Your task to perform on an android device: Add "apple airpods pro" to the cart on bestbuy, then select checkout. Image 0: 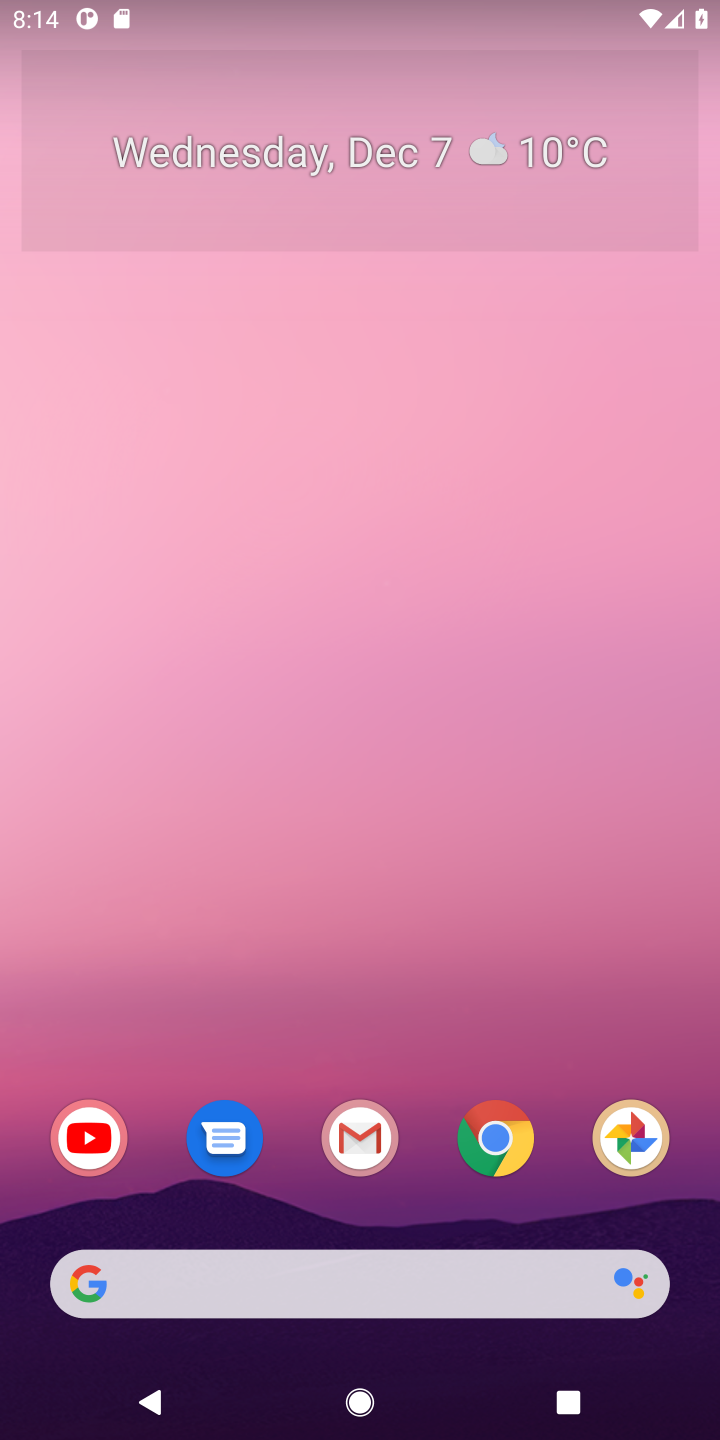
Step 0: press home button
Your task to perform on an android device: Add "apple airpods pro" to the cart on bestbuy, then select checkout. Image 1: 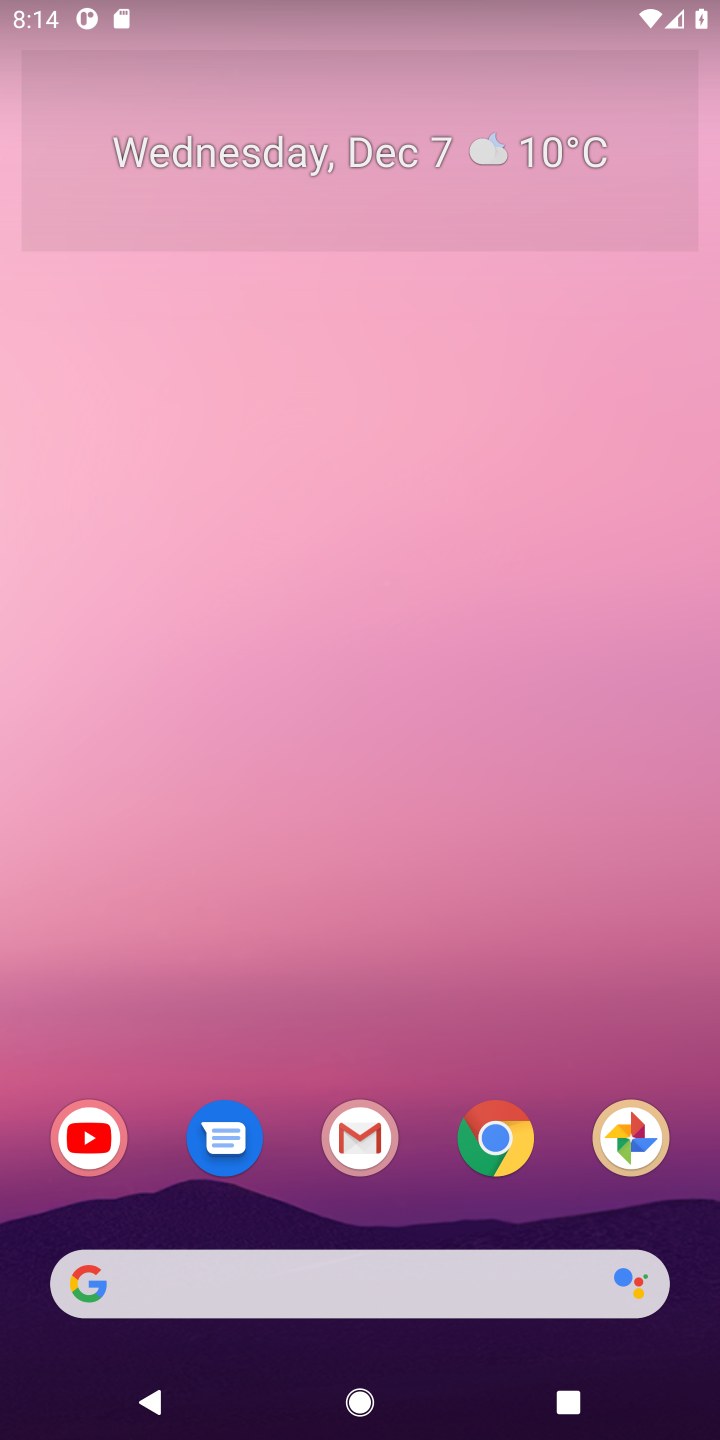
Step 1: click (156, 1276)
Your task to perform on an android device: Add "apple airpods pro" to the cart on bestbuy, then select checkout. Image 2: 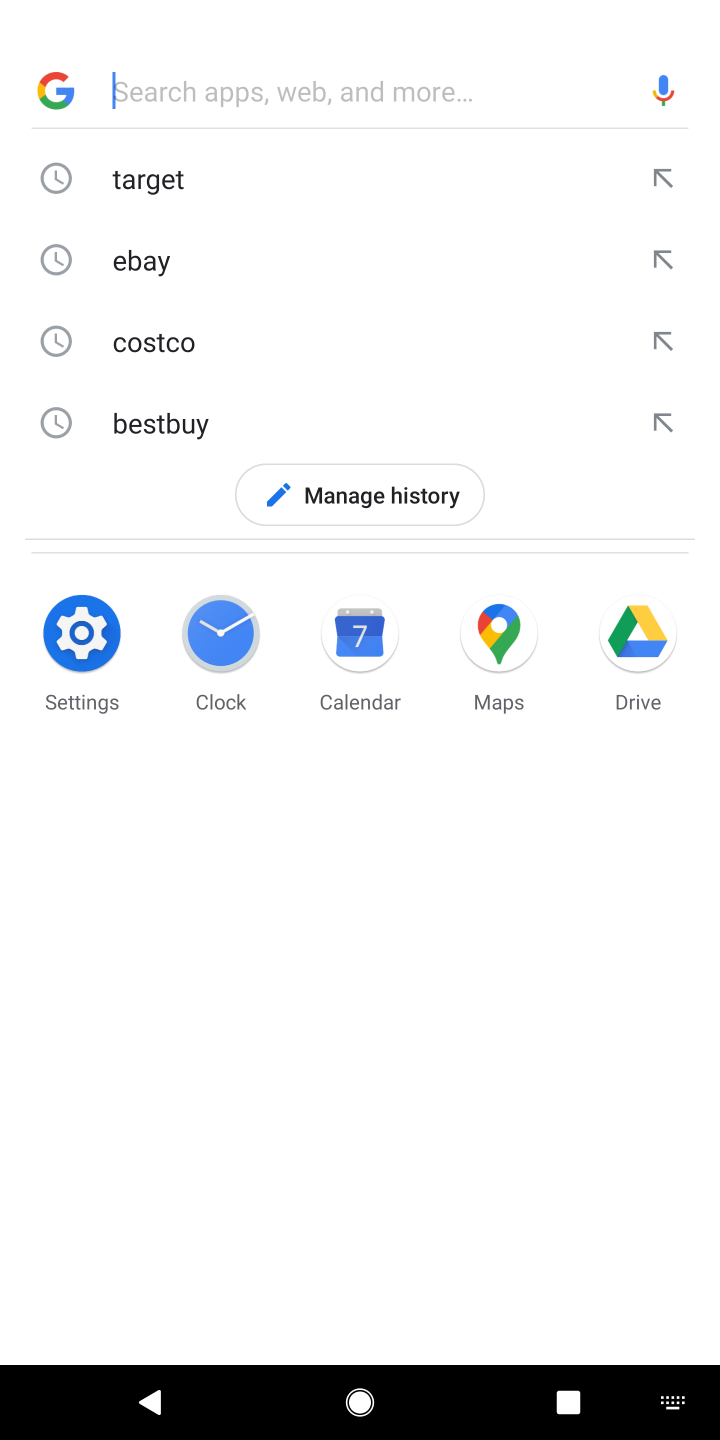
Step 2: type "bestbuy"
Your task to perform on an android device: Add "apple airpods pro" to the cart on bestbuy, then select checkout. Image 3: 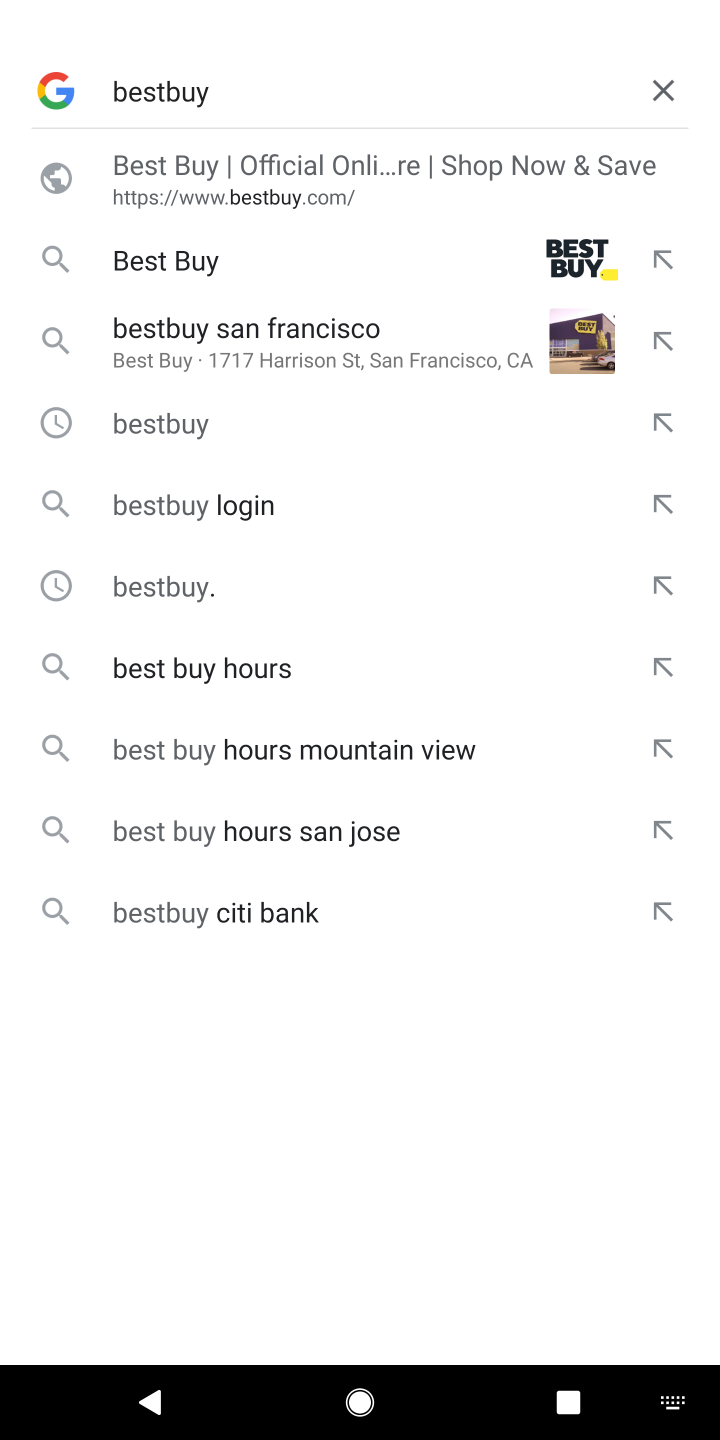
Step 3: press enter
Your task to perform on an android device: Add "apple airpods pro" to the cart on bestbuy, then select checkout. Image 4: 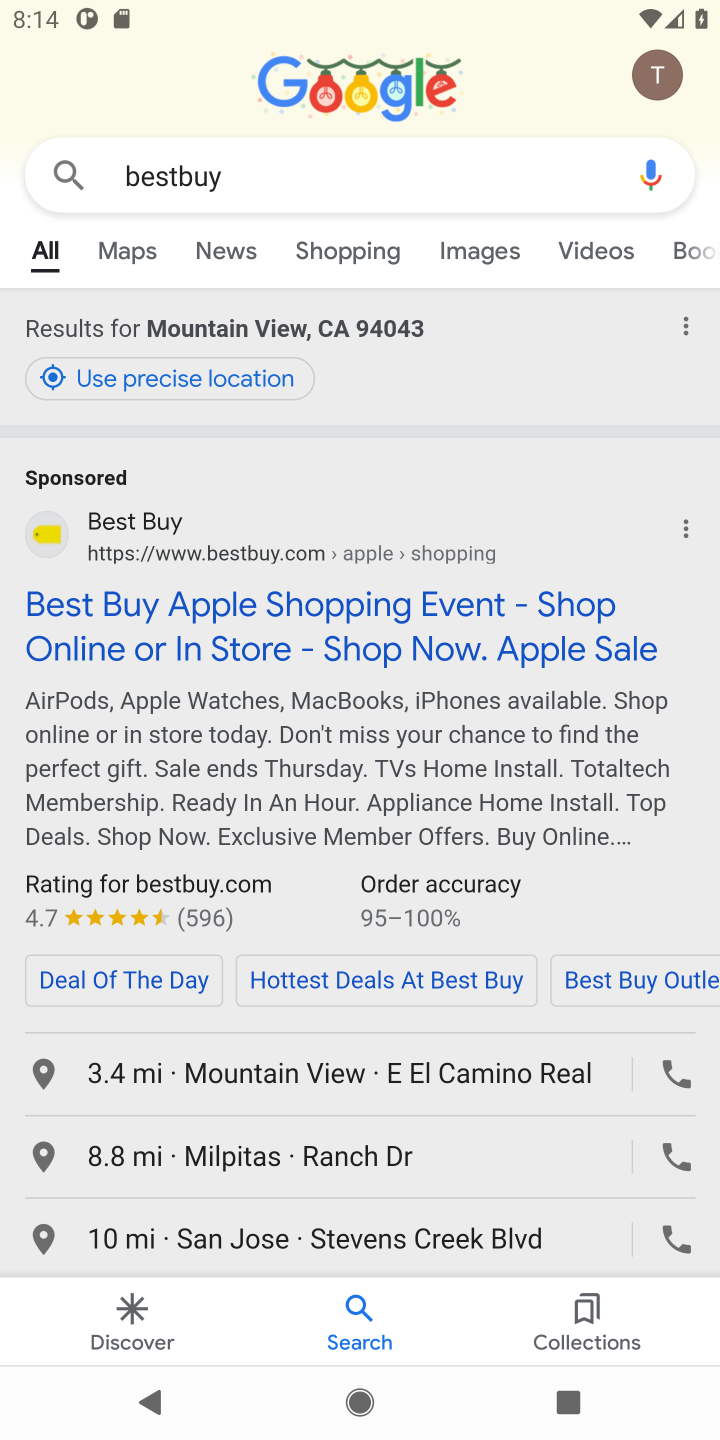
Step 4: click (392, 636)
Your task to perform on an android device: Add "apple airpods pro" to the cart on bestbuy, then select checkout. Image 5: 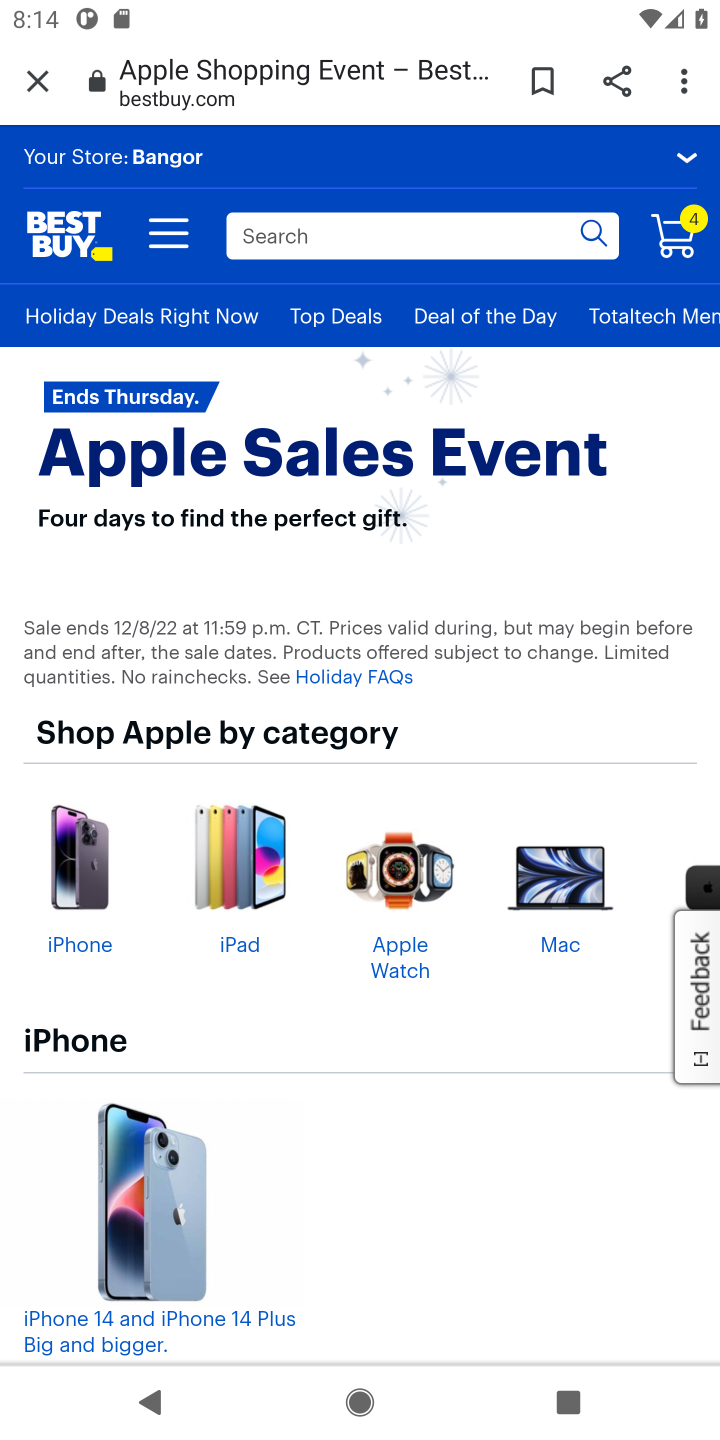
Step 5: click (291, 230)
Your task to perform on an android device: Add "apple airpods pro" to the cart on bestbuy, then select checkout. Image 6: 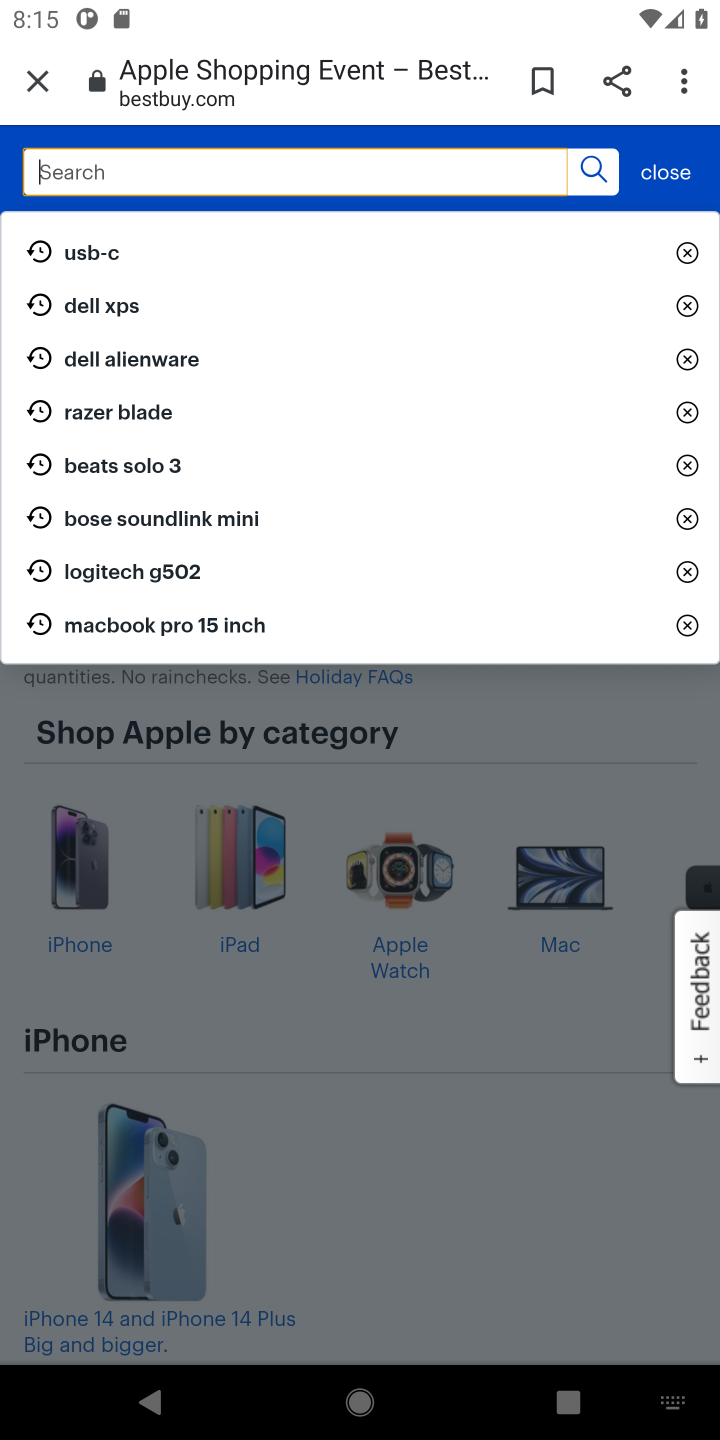
Step 6: press enter
Your task to perform on an android device: Add "apple airpods pro" to the cart on bestbuy, then select checkout. Image 7: 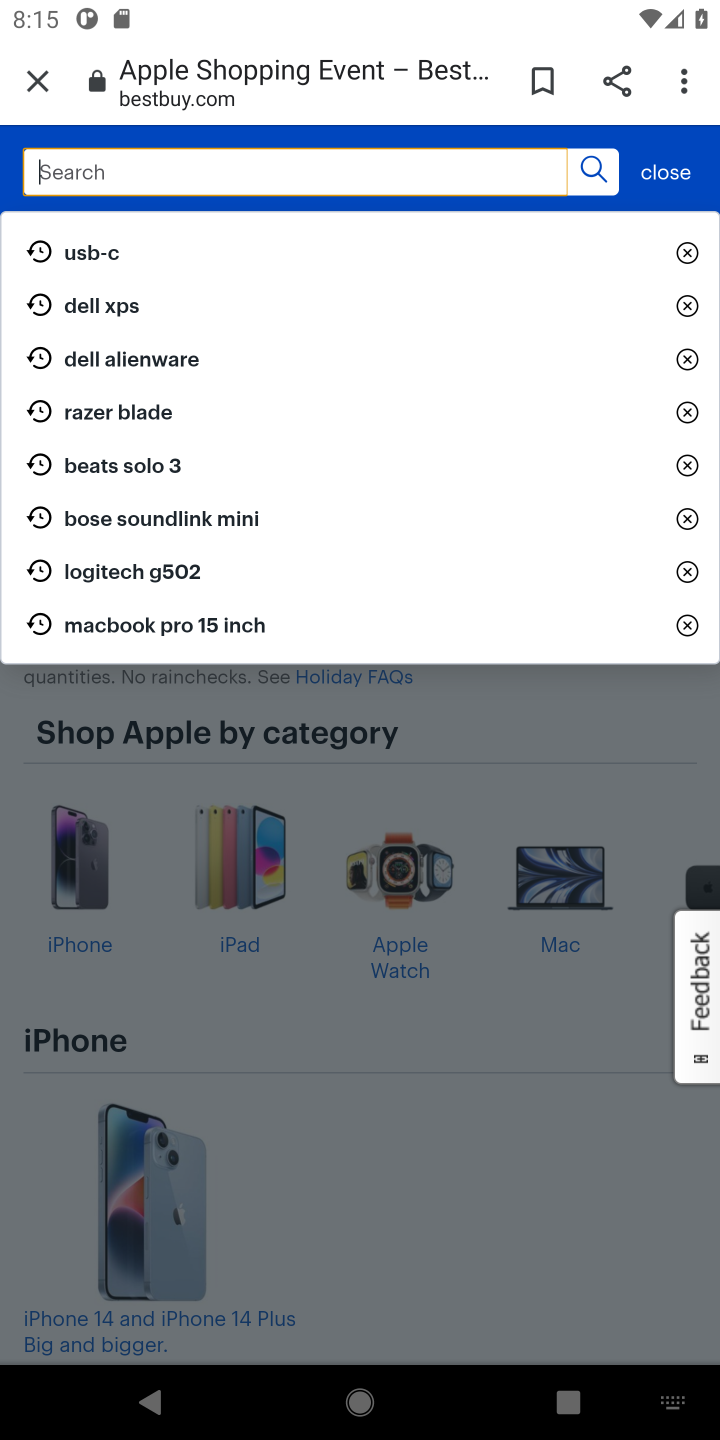
Step 7: type "apple airpods pro"
Your task to perform on an android device: Add "apple airpods pro" to the cart on bestbuy, then select checkout. Image 8: 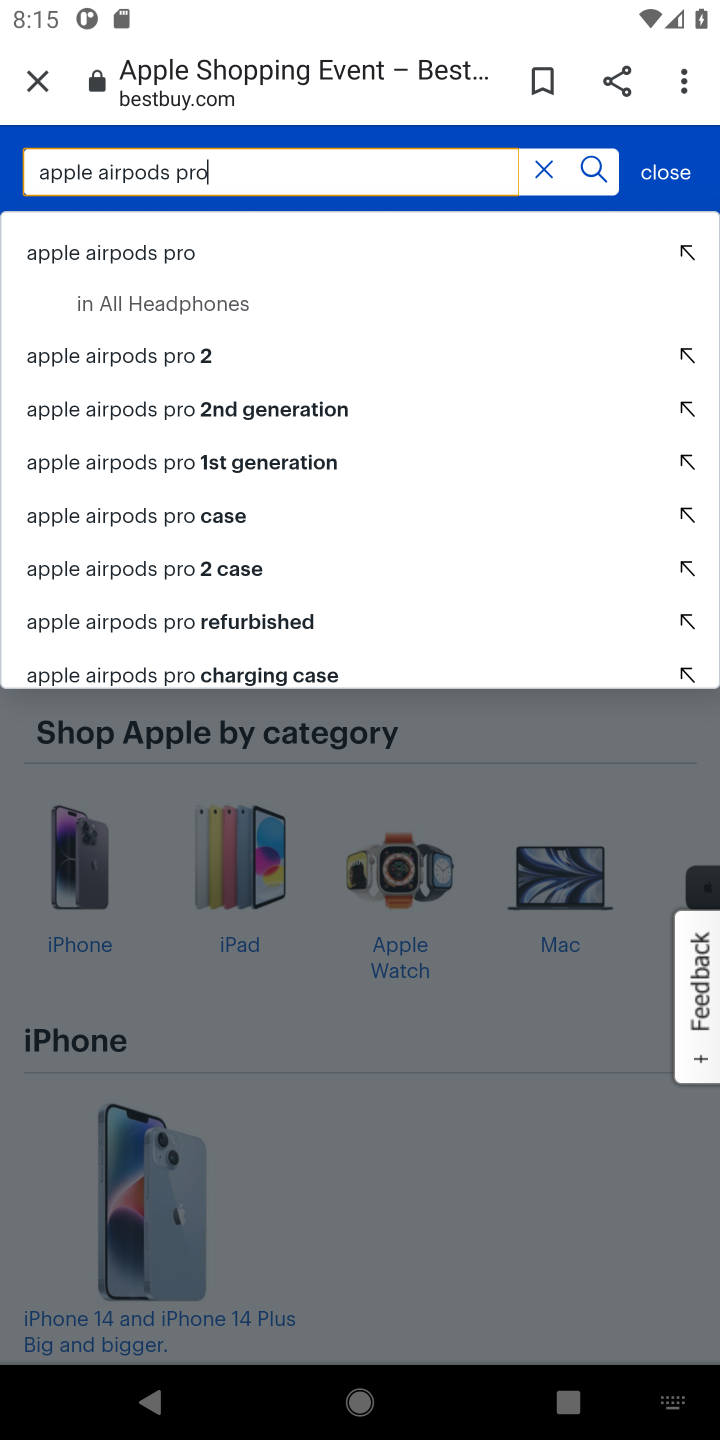
Step 8: click (595, 166)
Your task to perform on an android device: Add "apple airpods pro" to the cart on bestbuy, then select checkout. Image 9: 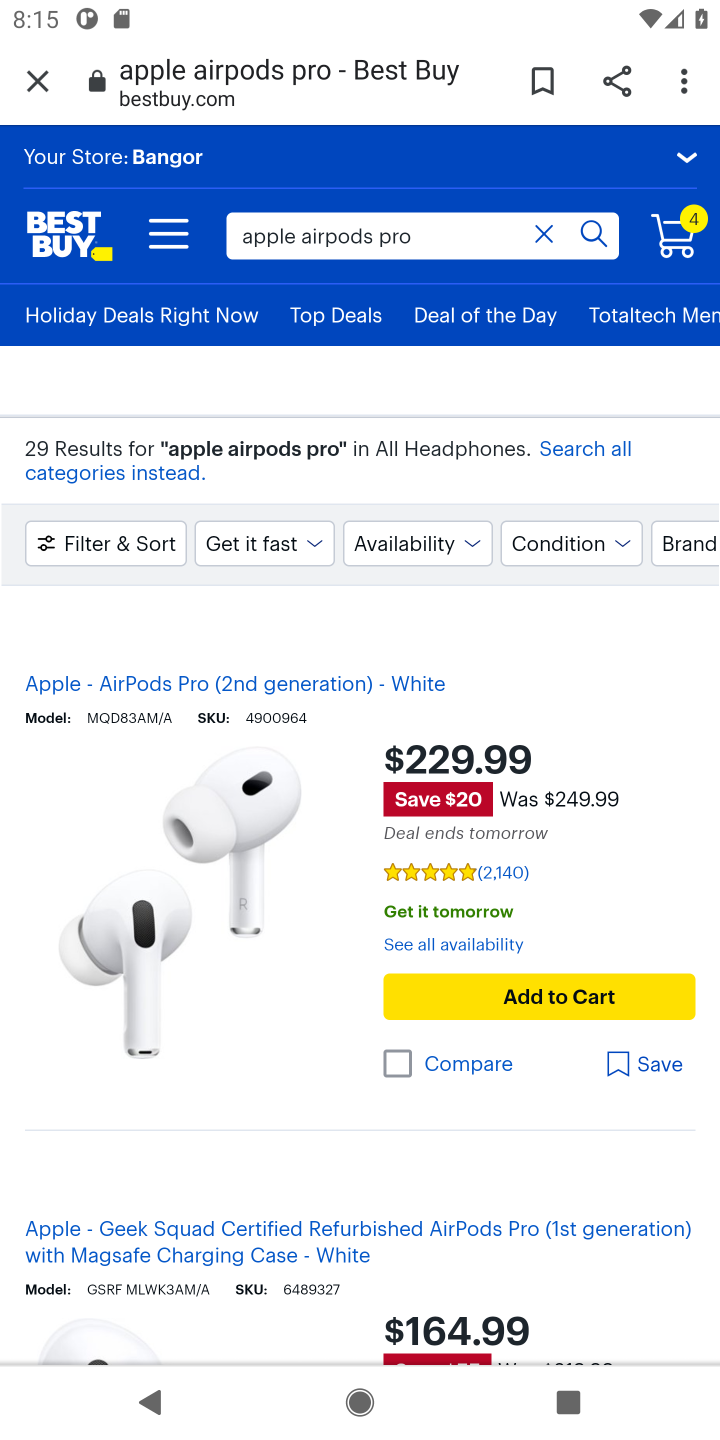
Step 9: click (544, 997)
Your task to perform on an android device: Add "apple airpods pro" to the cart on bestbuy, then select checkout. Image 10: 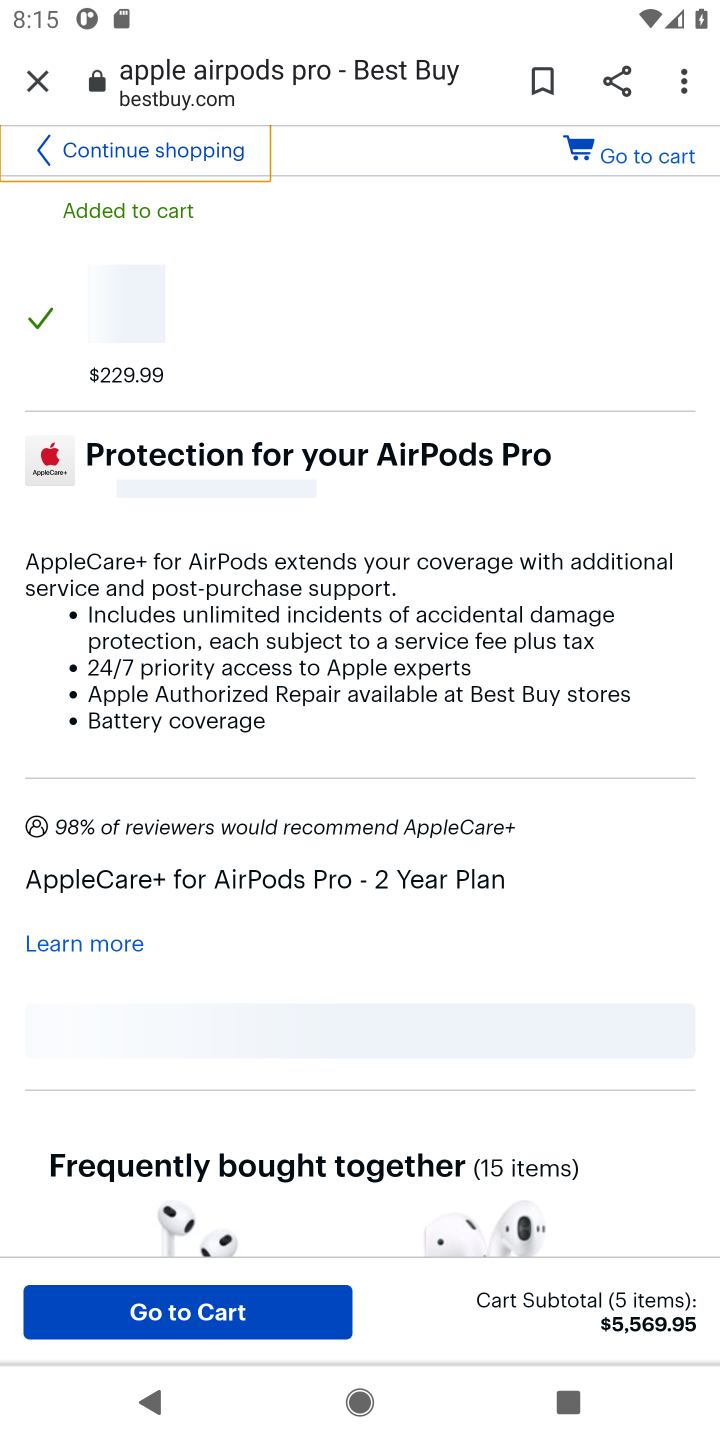
Step 10: click (206, 1309)
Your task to perform on an android device: Add "apple airpods pro" to the cart on bestbuy, then select checkout. Image 11: 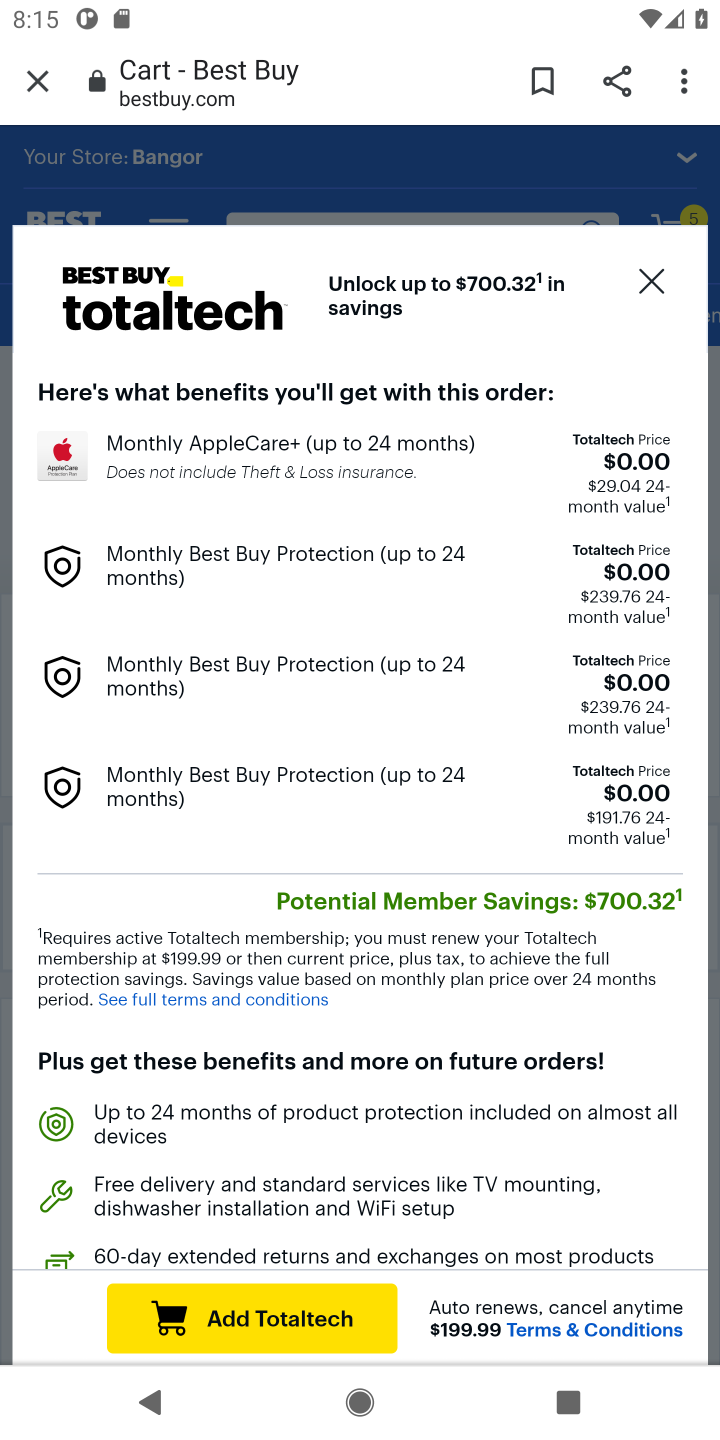
Step 11: click (654, 280)
Your task to perform on an android device: Add "apple airpods pro" to the cart on bestbuy, then select checkout. Image 12: 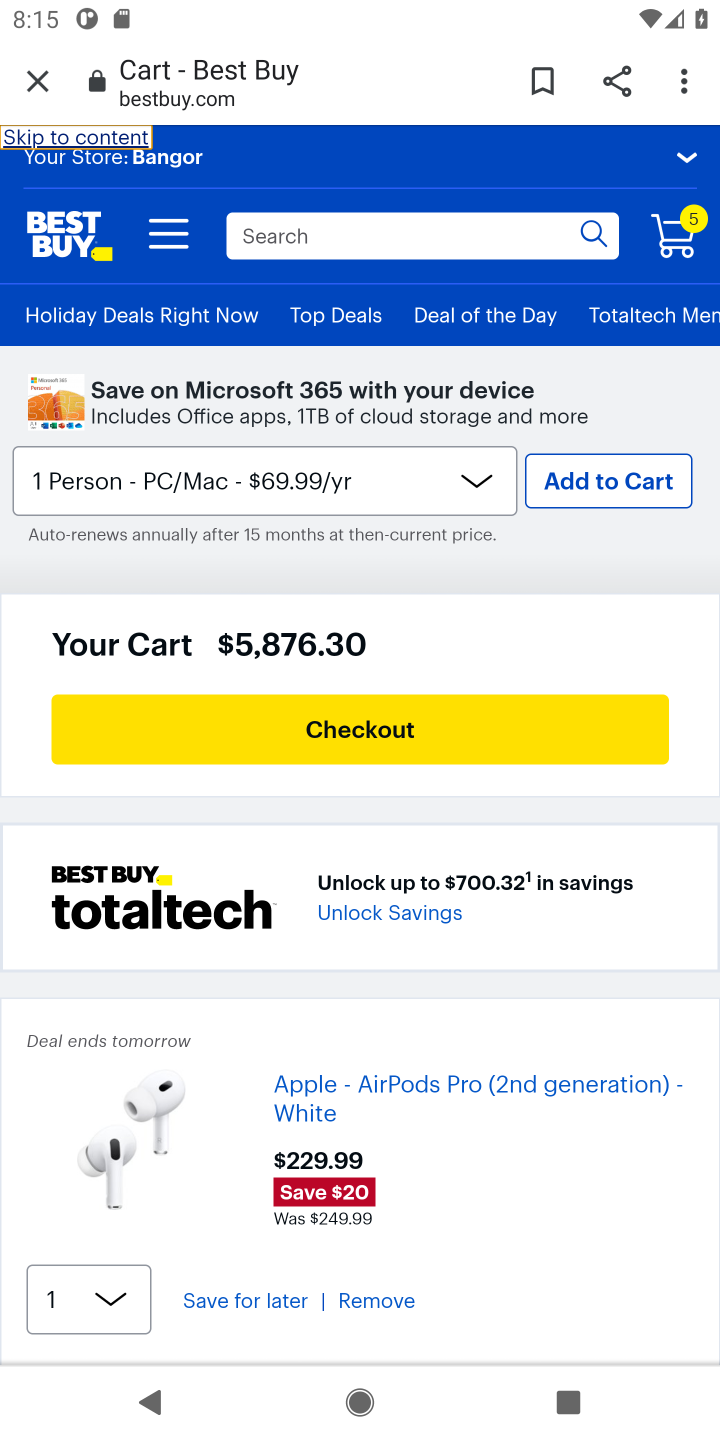
Step 12: click (389, 730)
Your task to perform on an android device: Add "apple airpods pro" to the cart on bestbuy, then select checkout. Image 13: 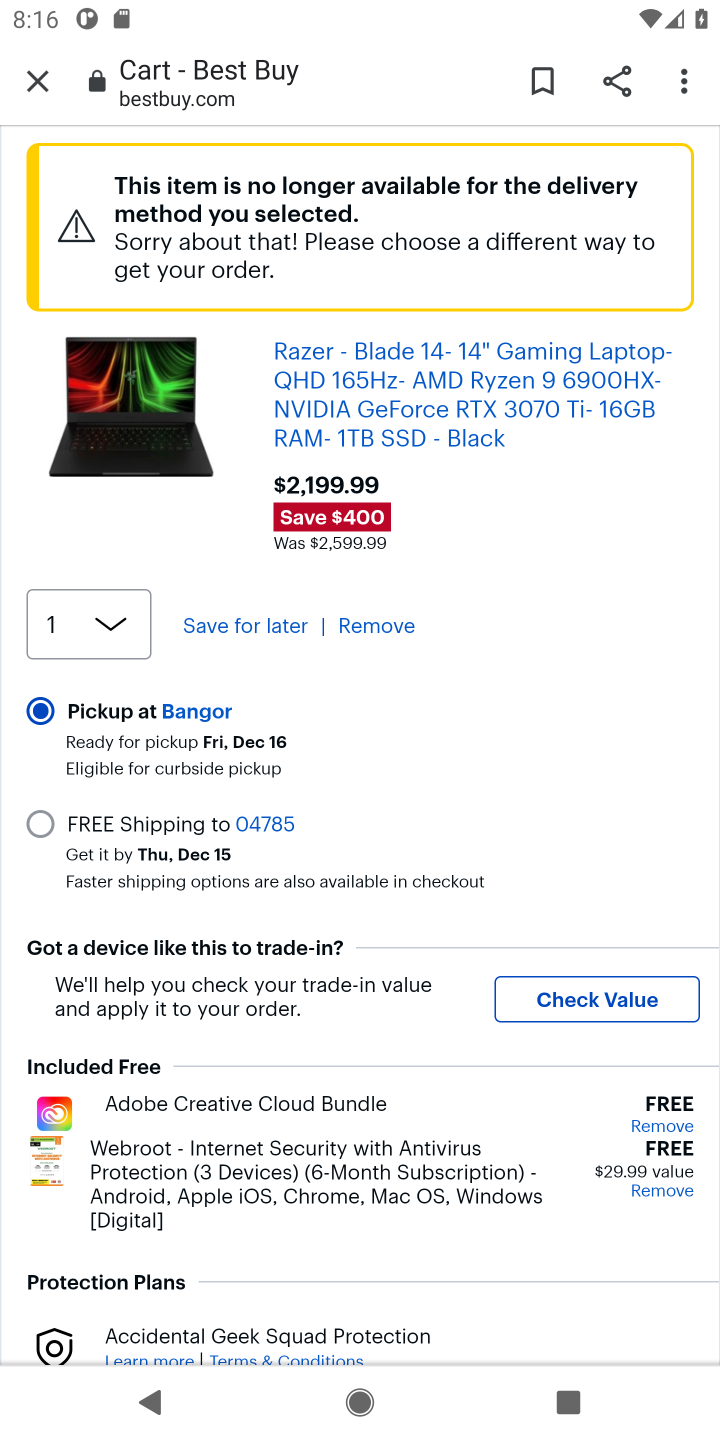
Step 13: task complete